Your task to perform on an android device: turn on airplane mode Image 0: 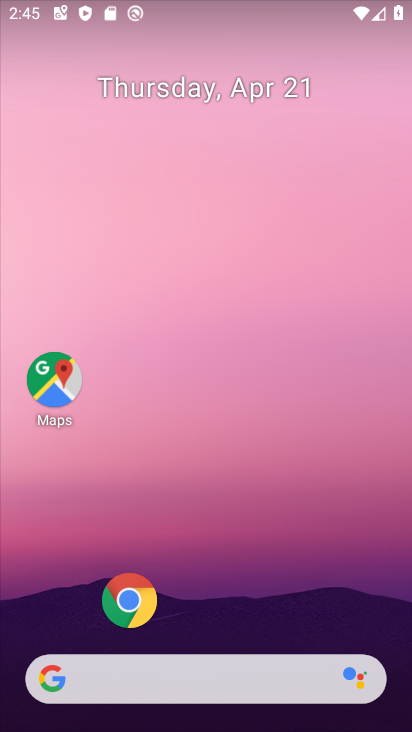
Step 0: drag from (3, 729) to (292, 160)
Your task to perform on an android device: turn on airplane mode Image 1: 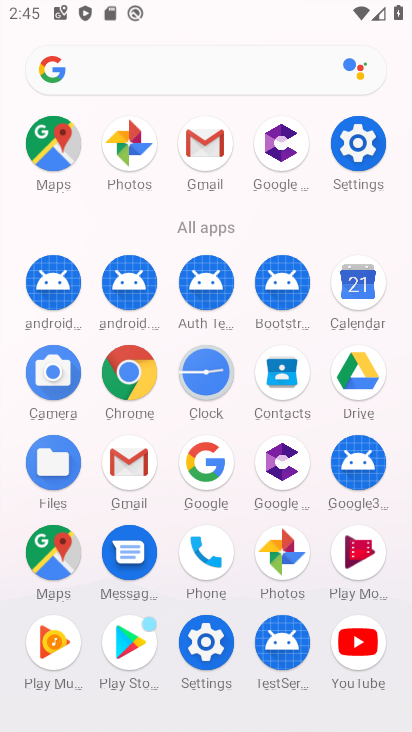
Step 1: click (349, 131)
Your task to perform on an android device: turn on airplane mode Image 2: 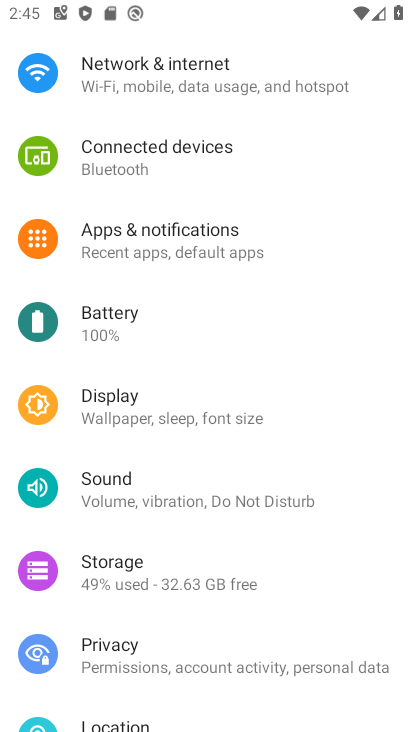
Step 2: drag from (234, 92) to (180, 472)
Your task to perform on an android device: turn on airplane mode Image 3: 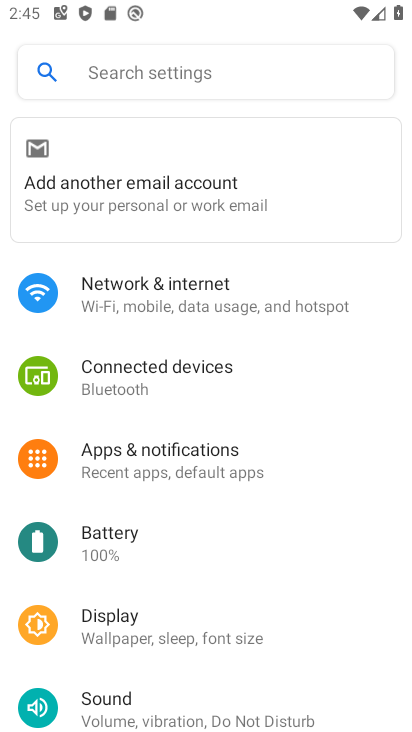
Step 3: click (174, 303)
Your task to perform on an android device: turn on airplane mode Image 4: 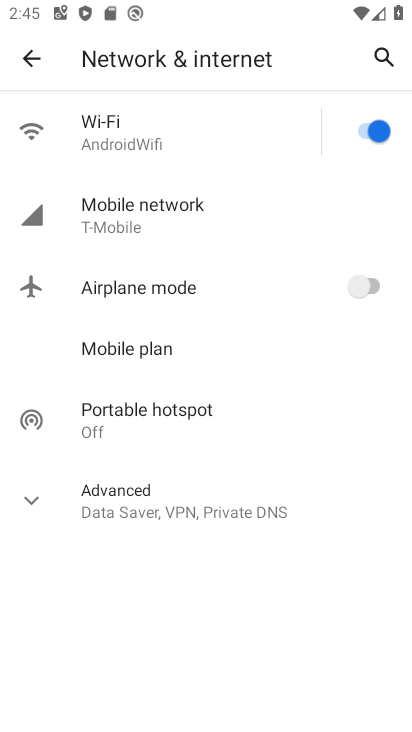
Step 4: click (356, 289)
Your task to perform on an android device: turn on airplane mode Image 5: 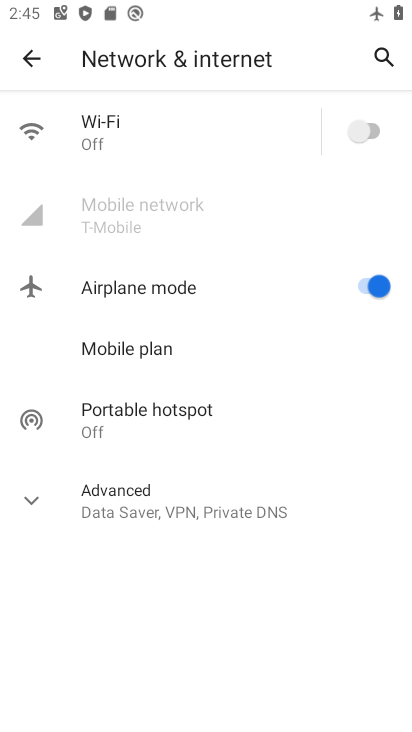
Step 5: task complete